Your task to perform on an android device: Do I have any events today? Image 0: 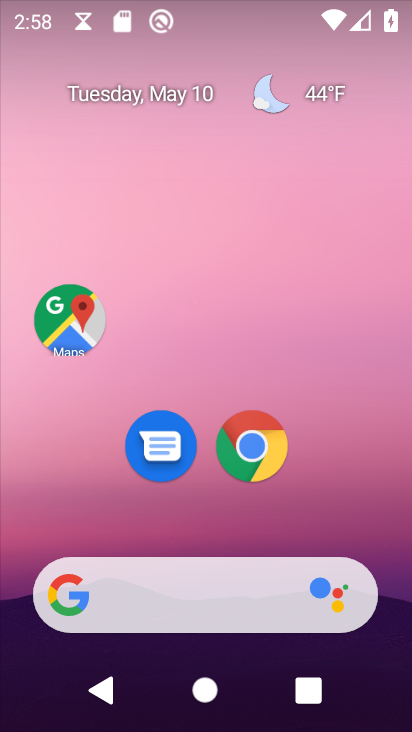
Step 0: drag from (372, 484) to (369, 170)
Your task to perform on an android device: Do I have any events today? Image 1: 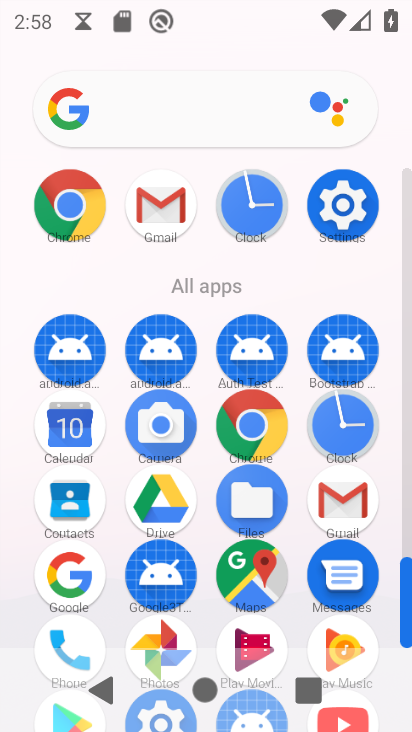
Step 1: click (64, 429)
Your task to perform on an android device: Do I have any events today? Image 2: 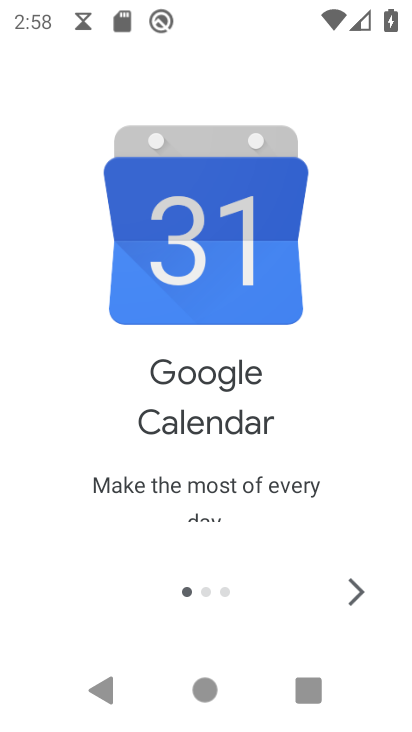
Step 2: click (352, 582)
Your task to perform on an android device: Do I have any events today? Image 3: 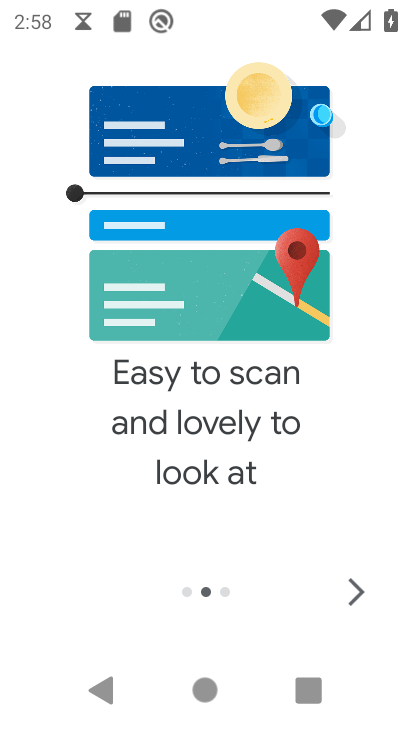
Step 3: click (351, 592)
Your task to perform on an android device: Do I have any events today? Image 4: 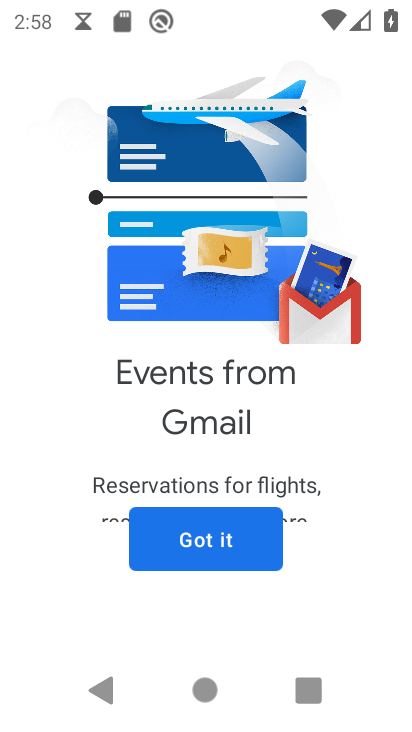
Step 4: click (236, 544)
Your task to perform on an android device: Do I have any events today? Image 5: 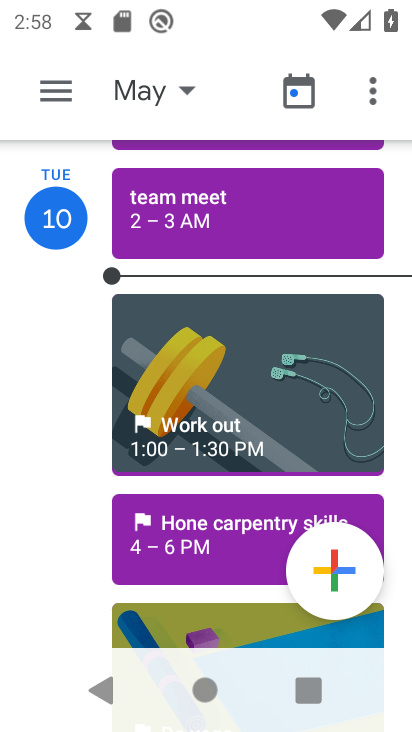
Step 5: click (133, 82)
Your task to perform on an android device: Do I have any events today? Image 6: 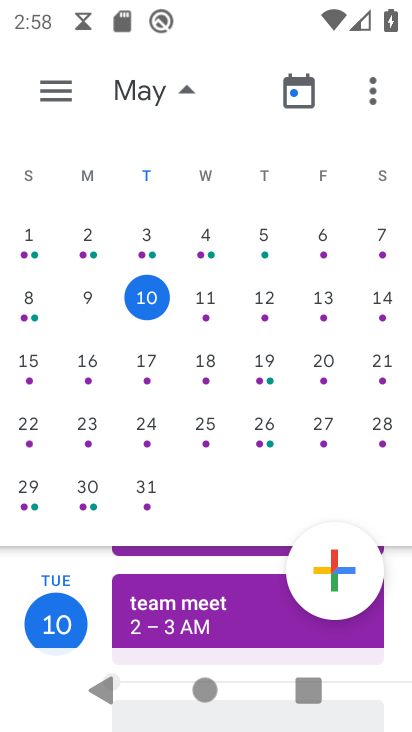
Step 6: task complete